Your task to perform on an android device: Go to network settings Image 0: 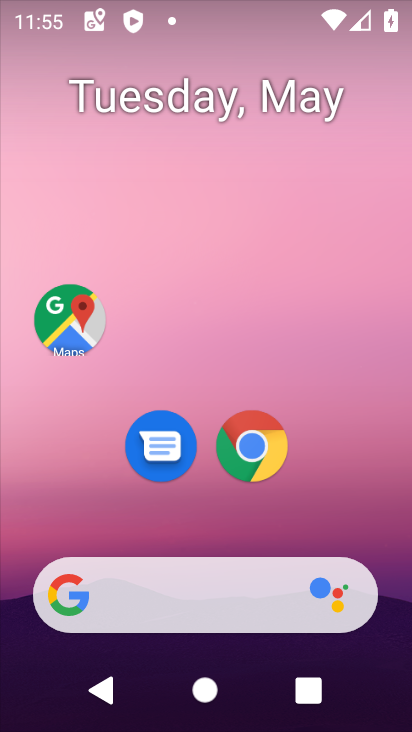
Step 0: drag from (241, 706) to (242, 181)
Your task to perform on an android device: Go to network settings Image 1: 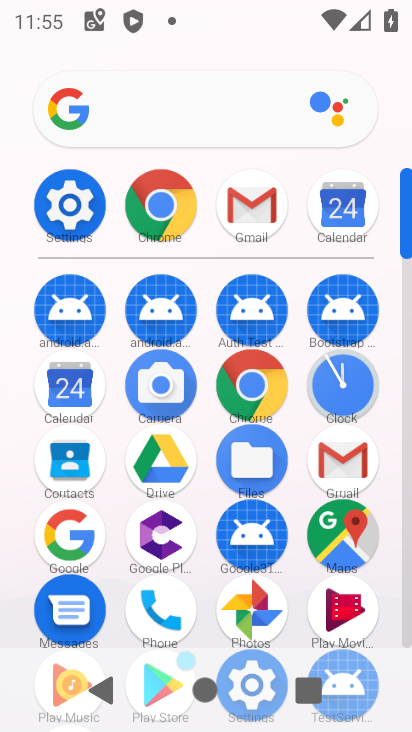
Step 1: click (76, 200)
Your task to perform on an android device: Go to network settings Image 2: 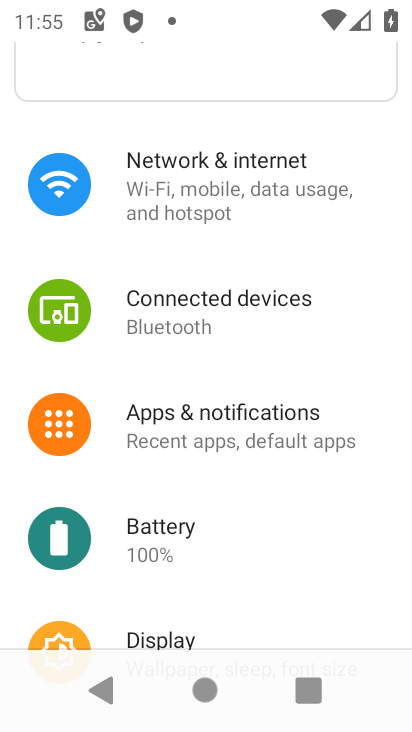
Step 2: click (178, 191)
Your task to perform on an android device: Go to network settings Image 3: 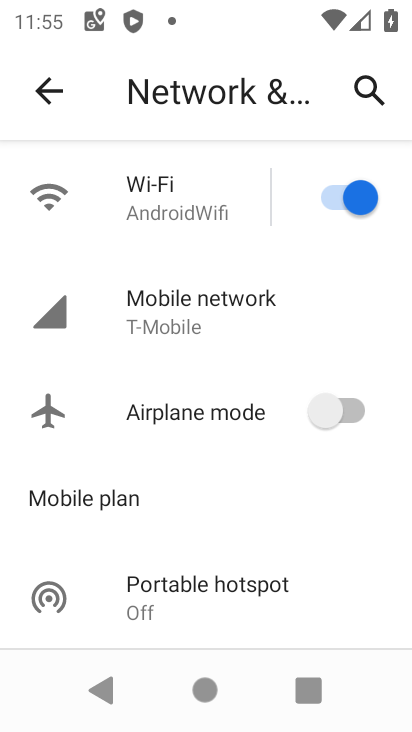
Step 3: click (171, 310)
Your task to perform on an android device: Go to network settings Image 4: 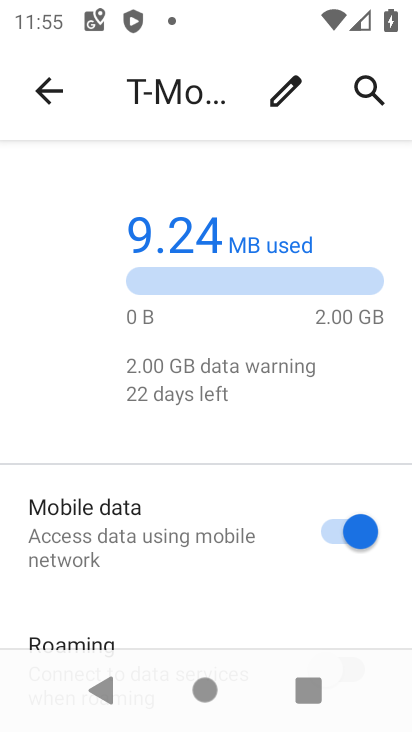
Step 4: task complete